Your task to perform on an android device: install app "Google Docs" Image 0: 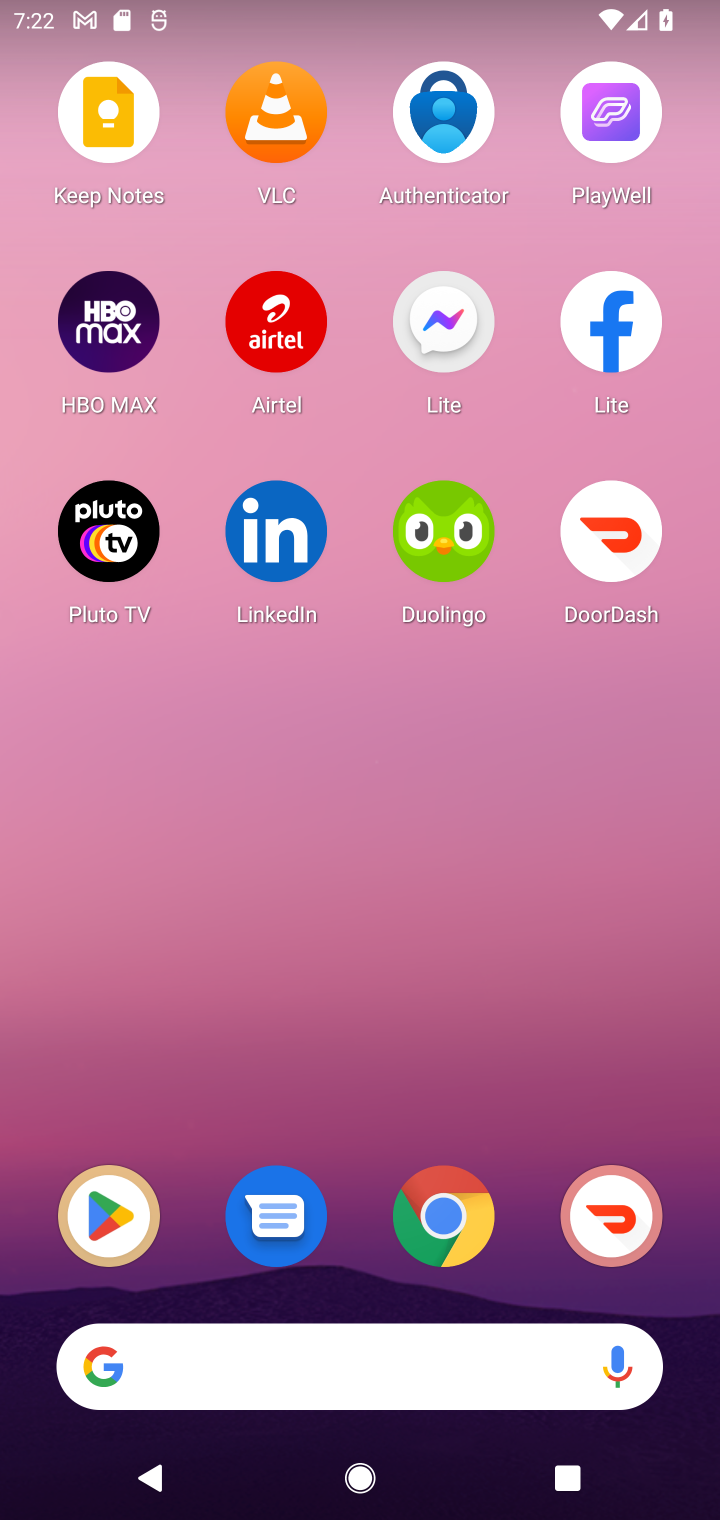
Step 0: press home button
Your task to perform on an android device: install app "Google Docs" Image 1: 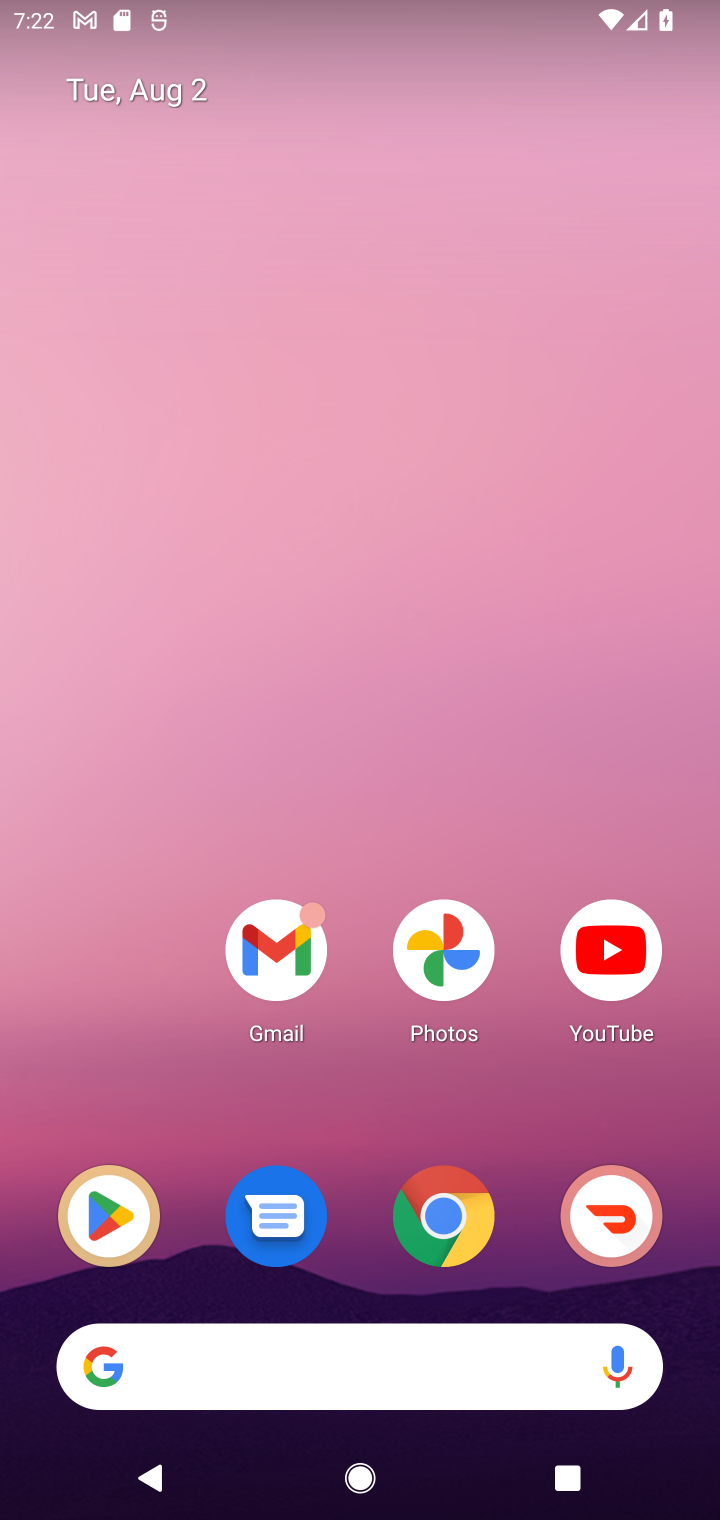
Step 1: click (101, 1211)
Your task to perform on an android device: install app "Google Docs" Image 2: 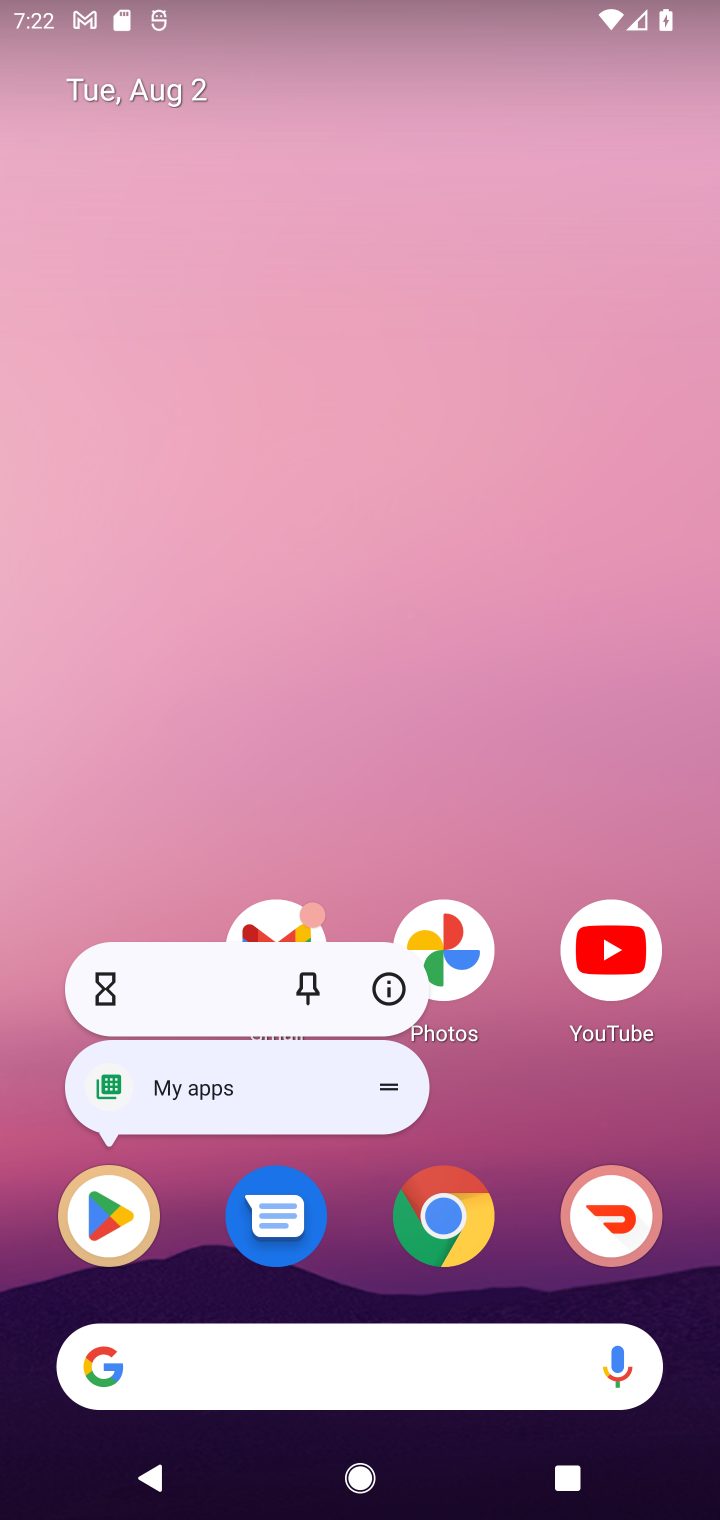
Step 2: click (99, 1215)
Your task to perform on an android device: install app "Google Docs" Image 3: 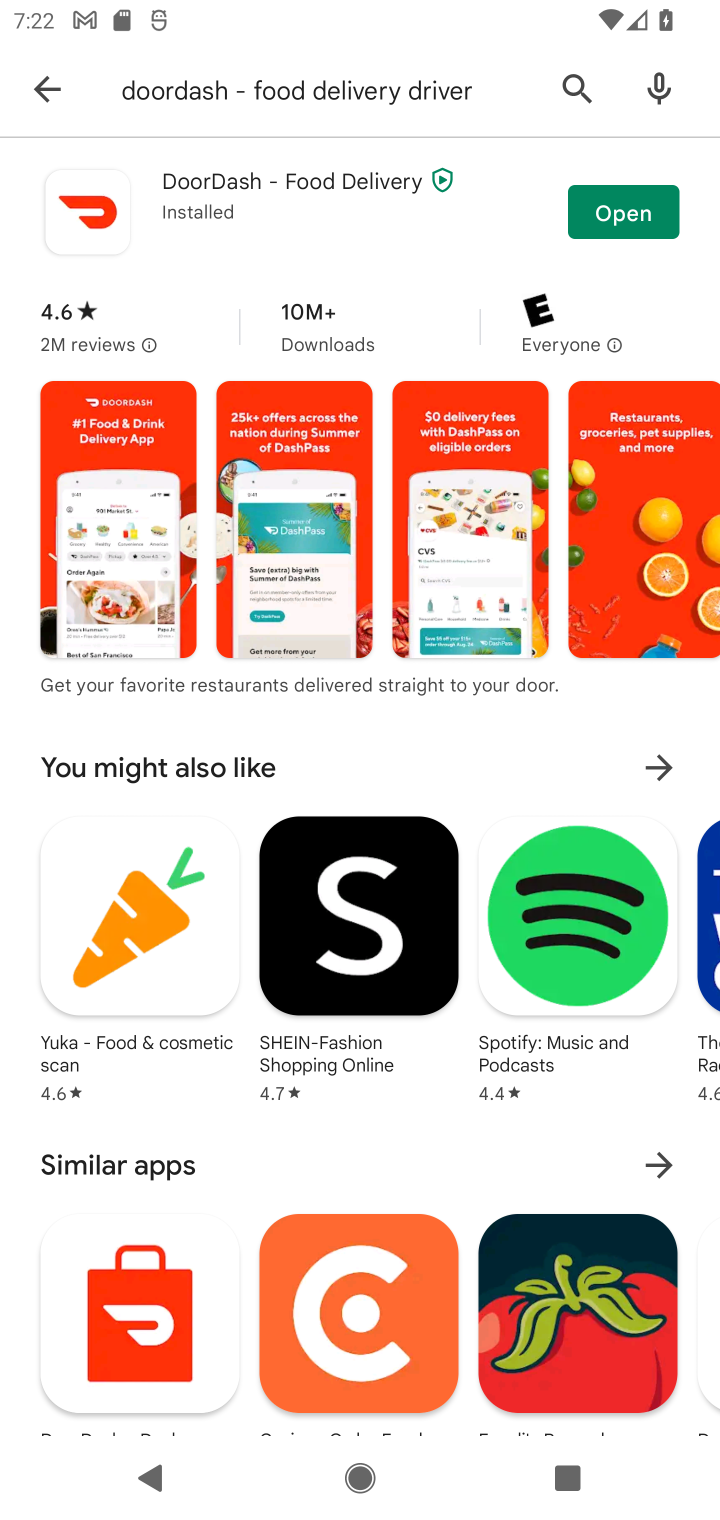
Step 3: click (575, 78)
Your task to perform on an android device: install app "Google Docs" Image 4: 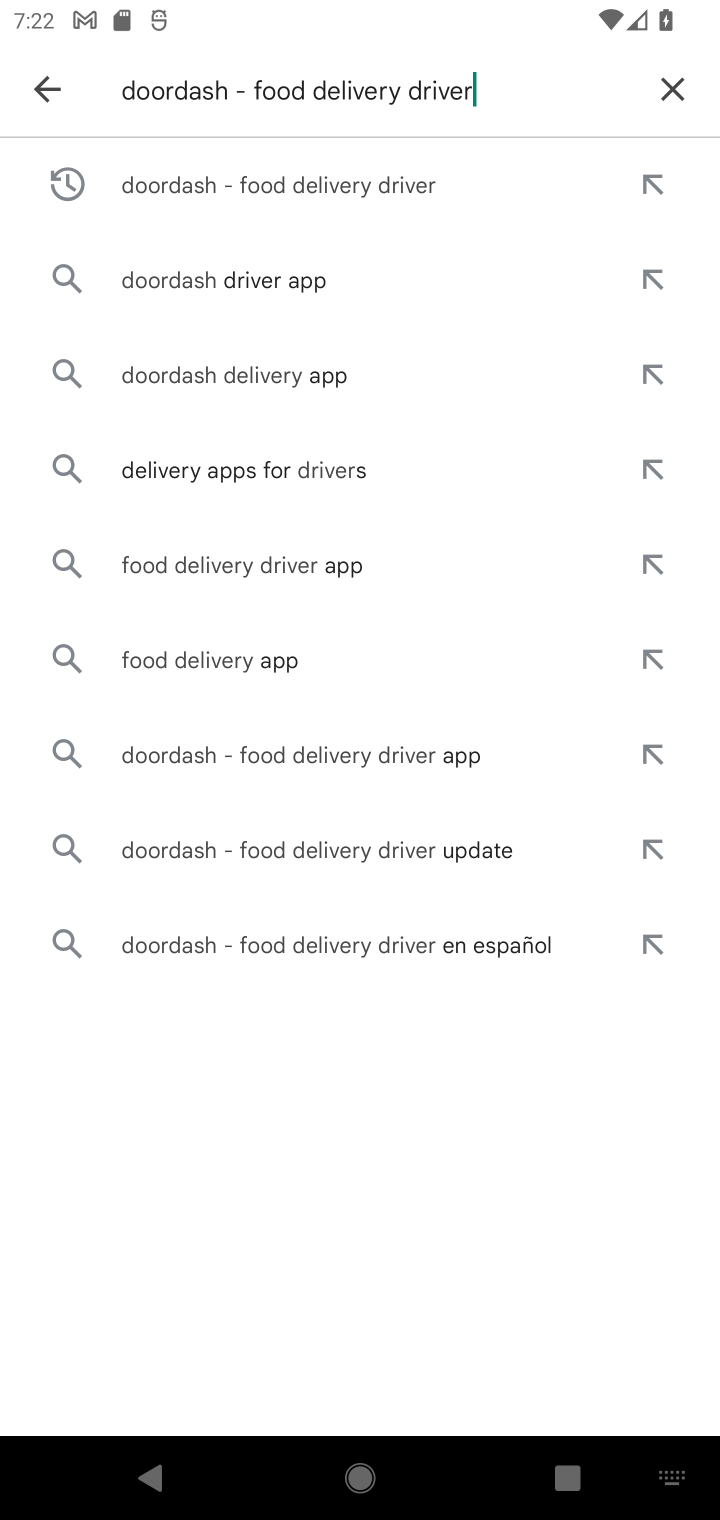
Step 4: click (675, 73)
Your task to perform on an android device: install app "Google Docs" Image 5: 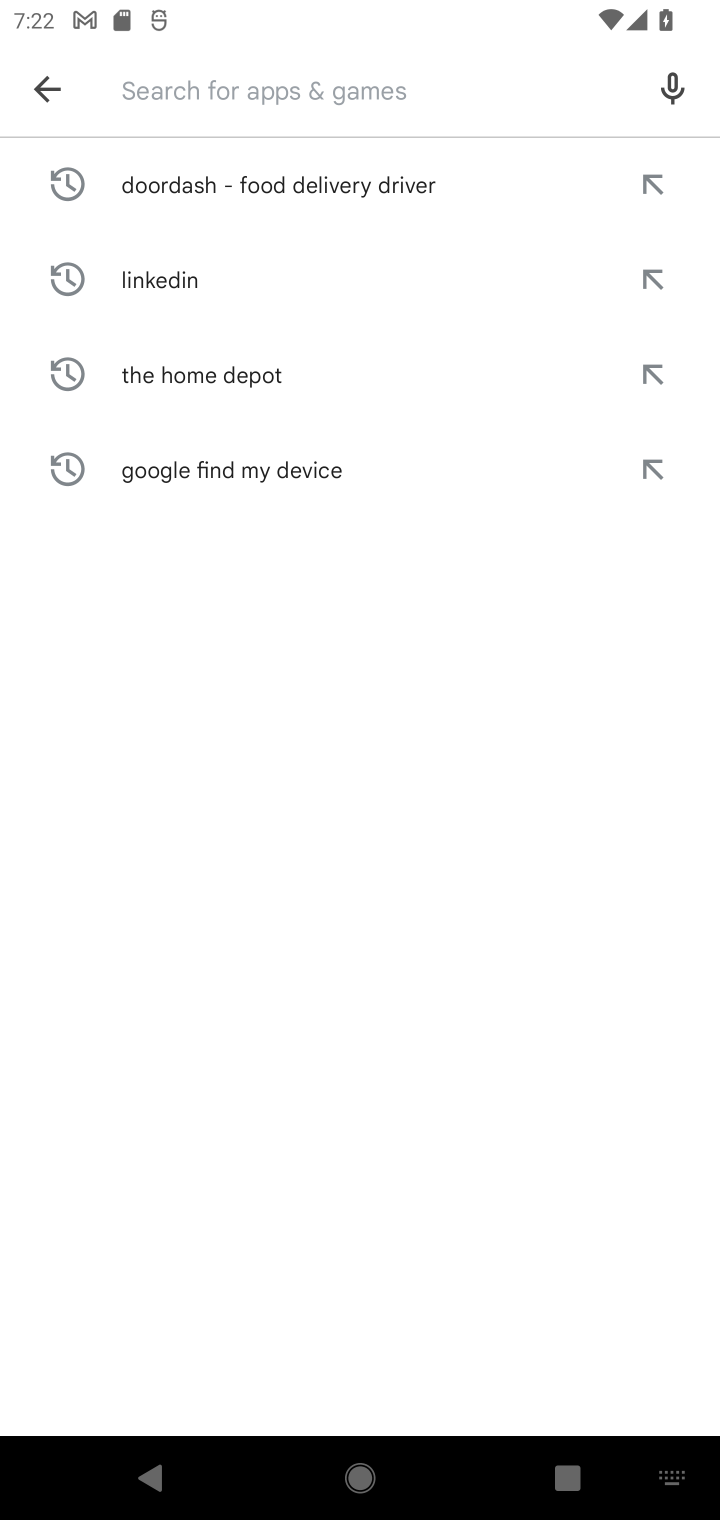
Step 5: type "Google Docs"
Your task to perform on an android device: install app "Google Docs" Image 6: 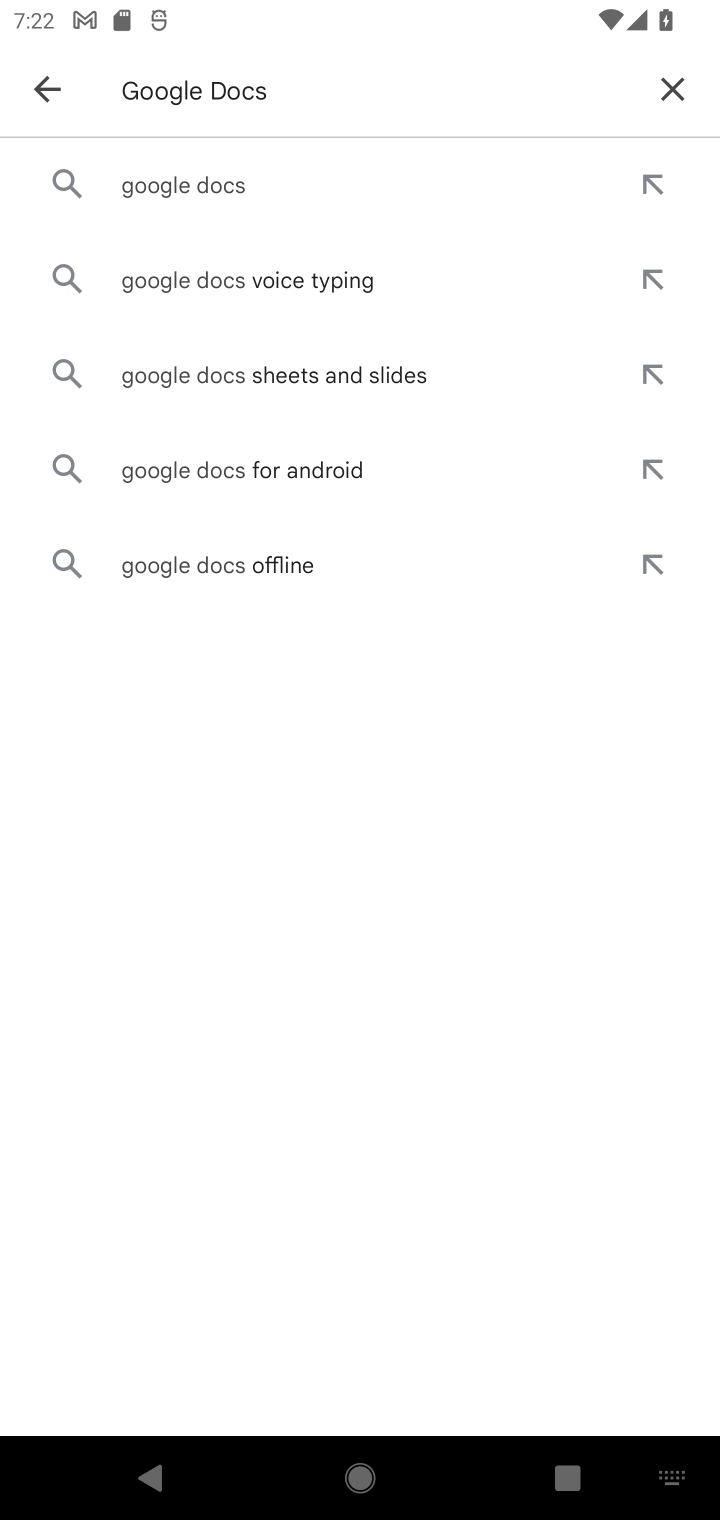
Step 6: click (229, 184)
Your task to perform on an android device: install app "Google Docs" Image 7: 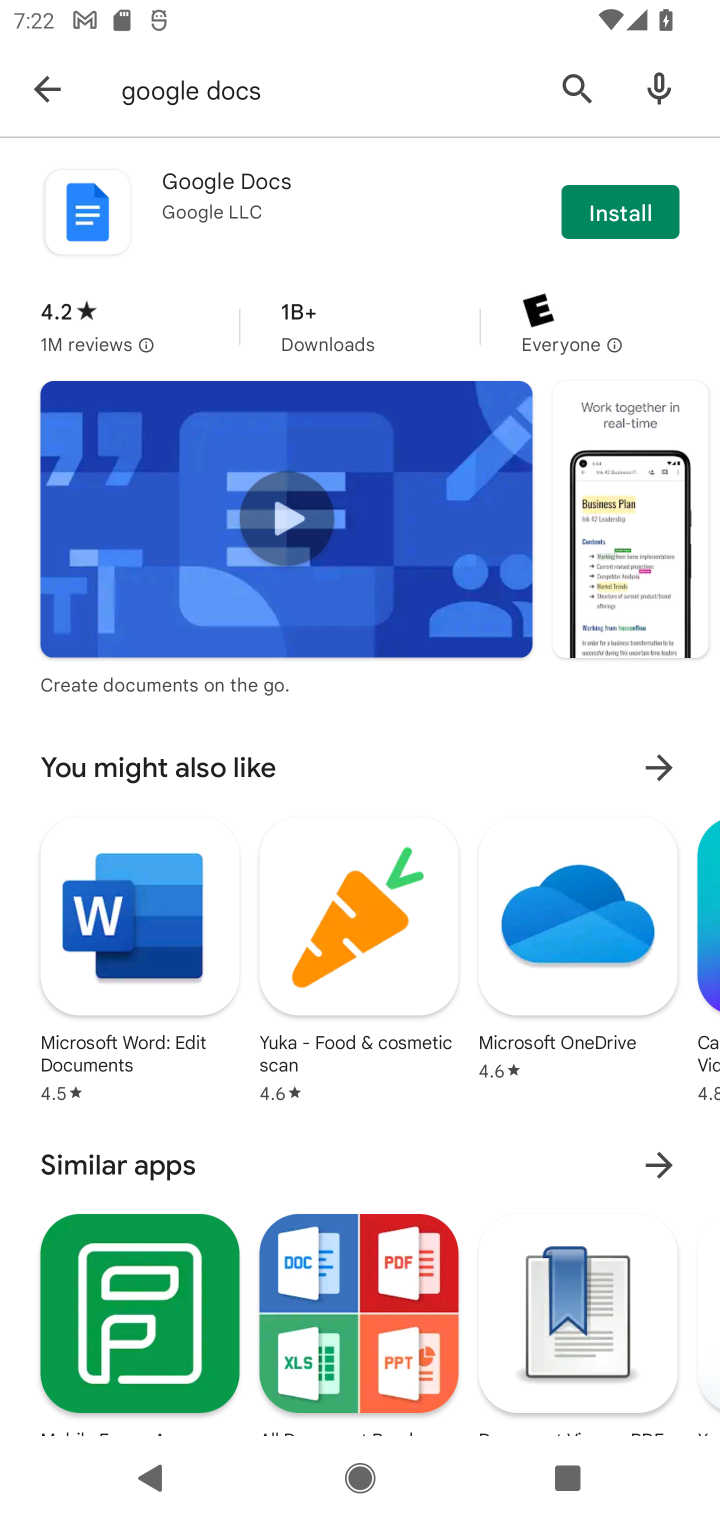
Step 7: click (637, 202)
Your task to perform on an android device: install app "Google Docs" Image 8: 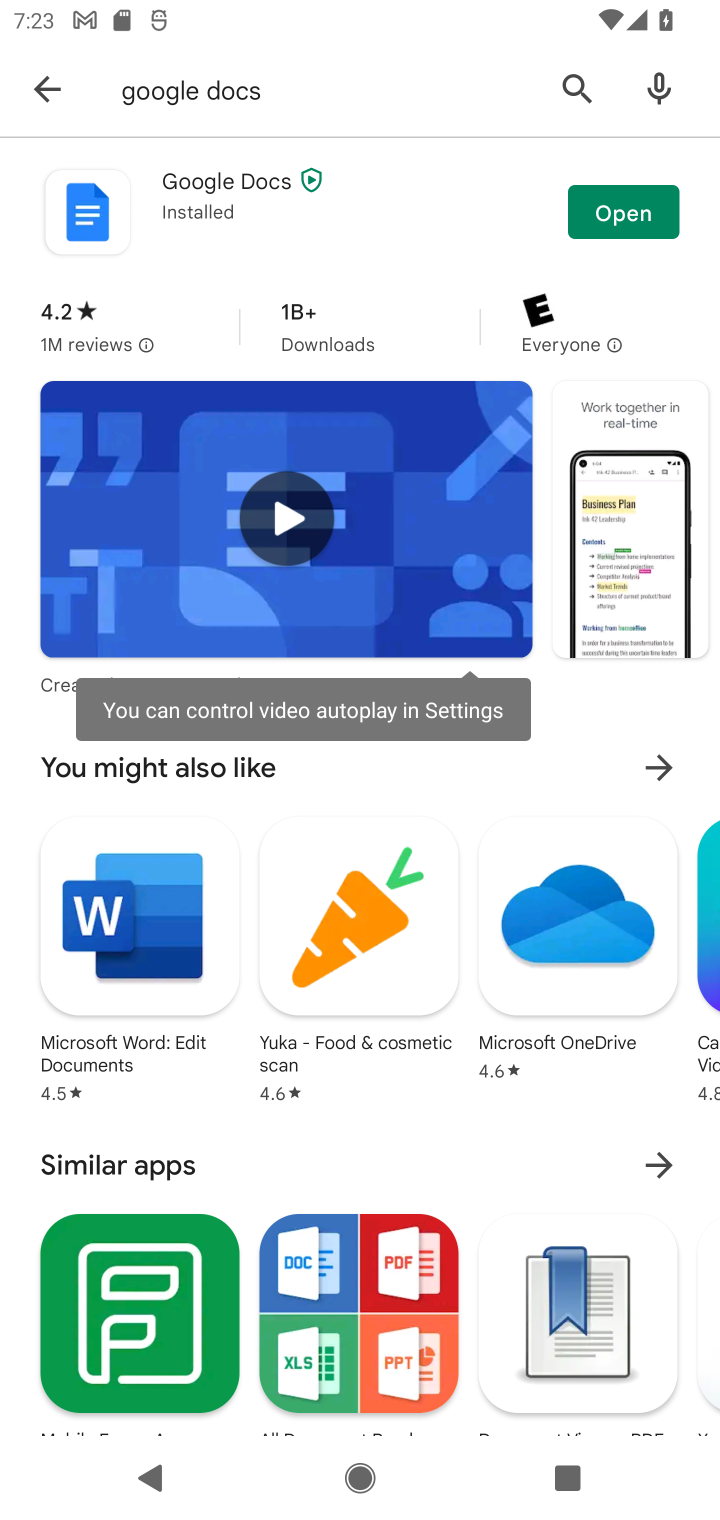
Step 8: task complete